Your task to perform on an android device: uninstall "Grab" Image 0: 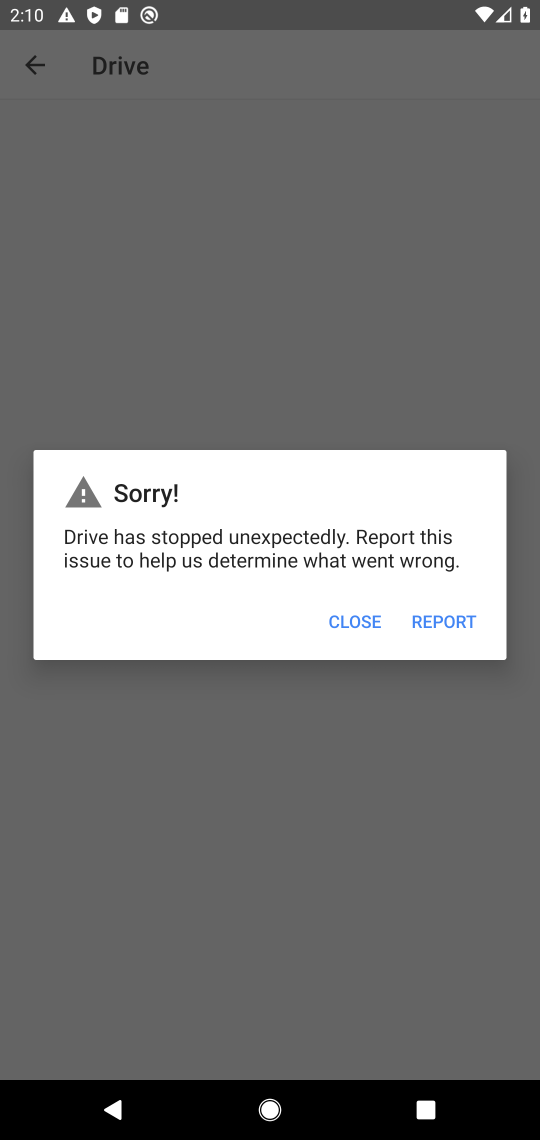
Step 0: press home button
Your task to perform on an android device: uninstall "Grab" Image 1: 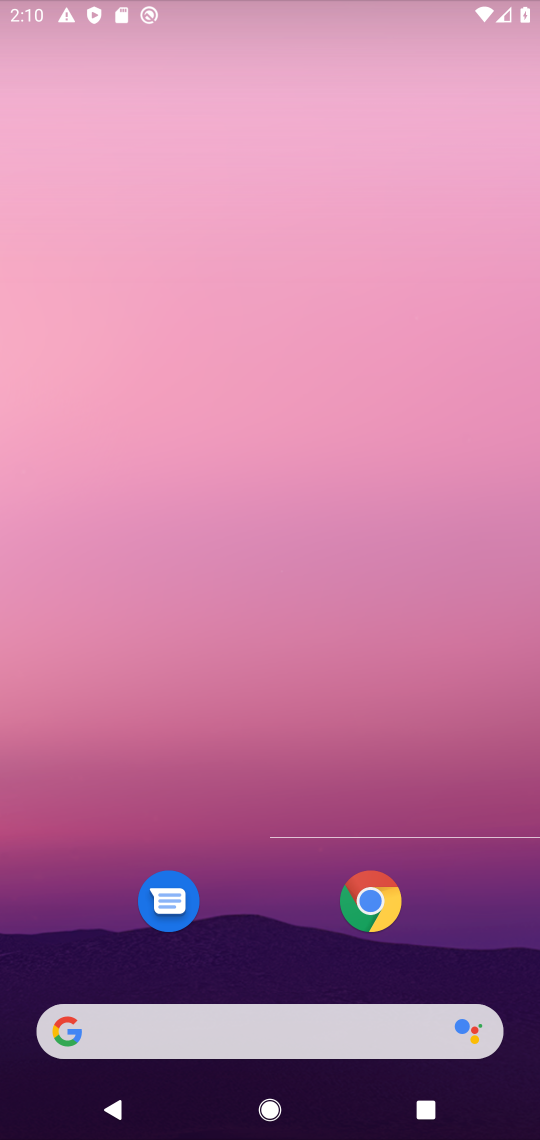
Step 1: drag from (303, 1005) to (302, 3)
Your task to perform on an android device: uninstall "Grab" Image 2: 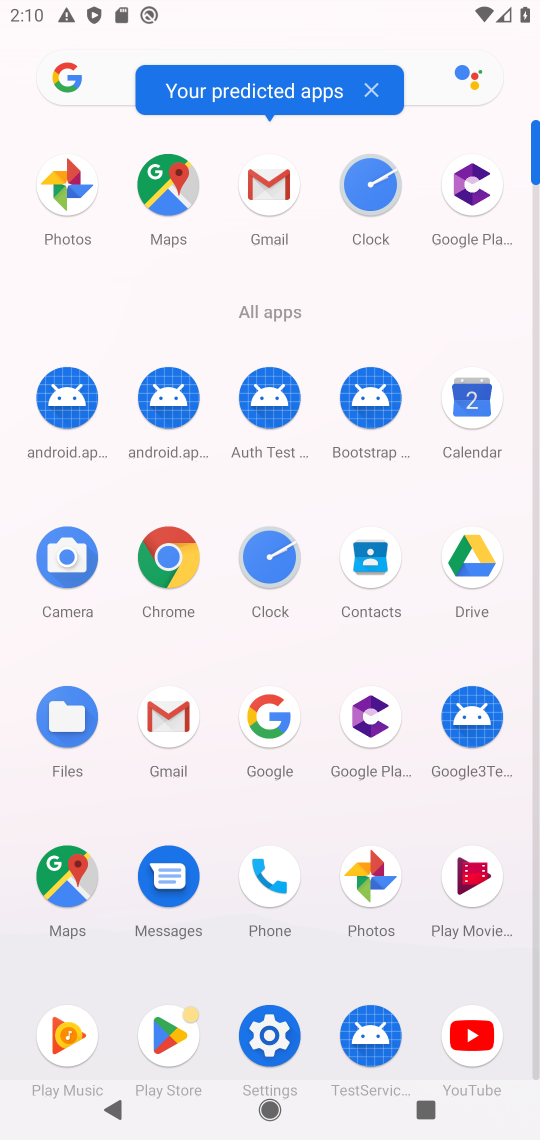
Step 2: click (174, 1023)
Your task to perform on an android device: uninstall "Grab" Image 3: 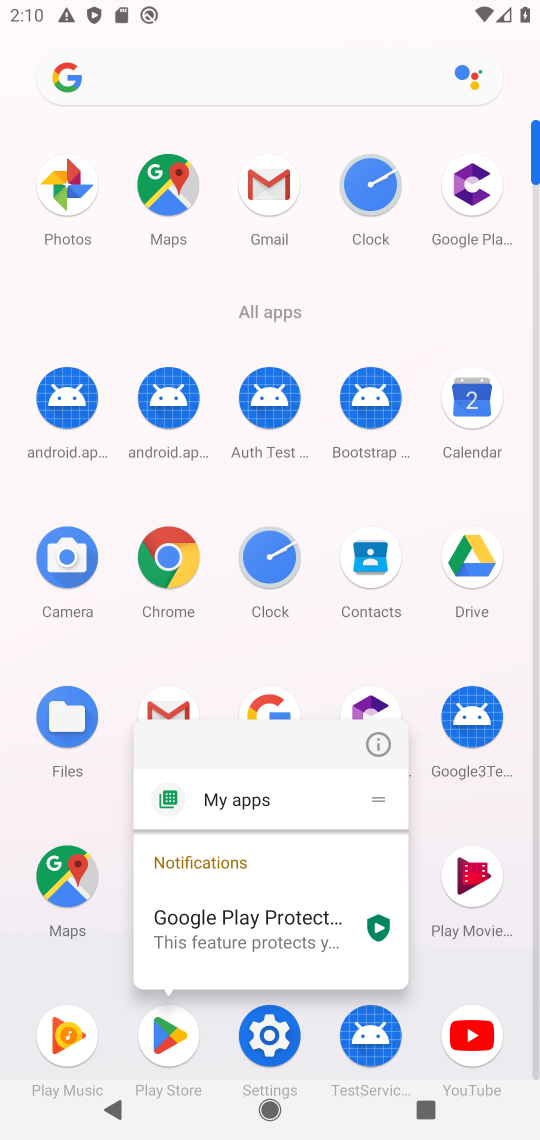
Step 3: click (166, 1029)
Your task to perform on an android device: uninstall "Grab" Image 4: 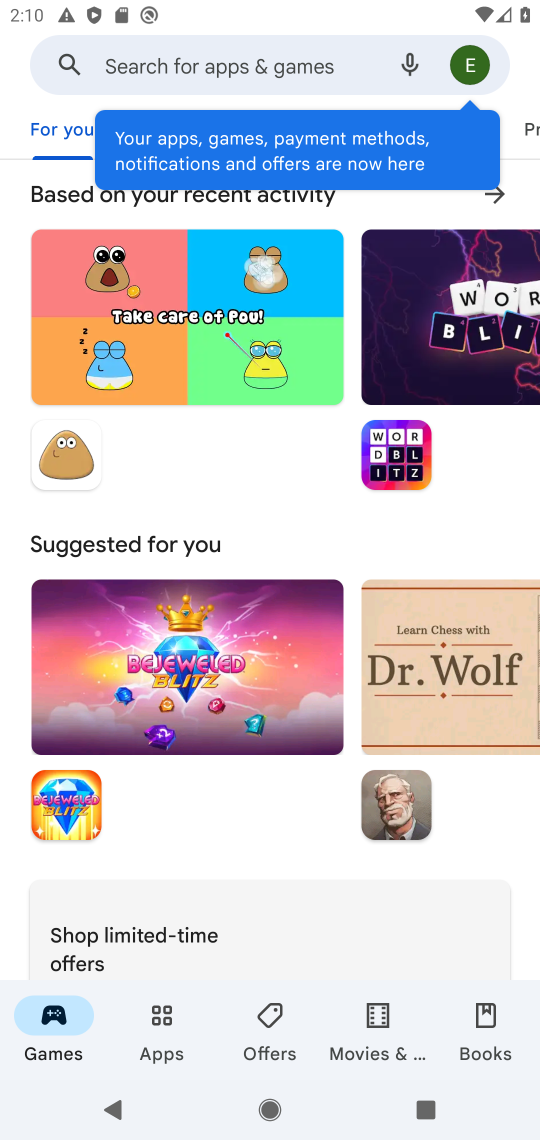
Step 4: click (276, 62)
Your task to perform on an android device: uninstall "Grab" Image 5: 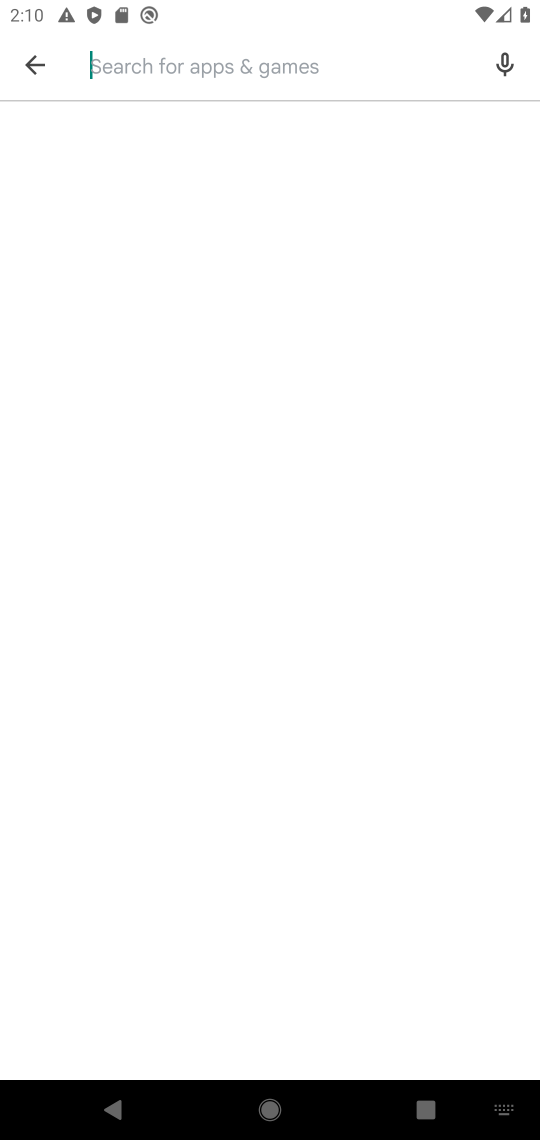
Step 5: type "Grab"
Your task to perform on an android device: uninstall "Grab" Image 6: 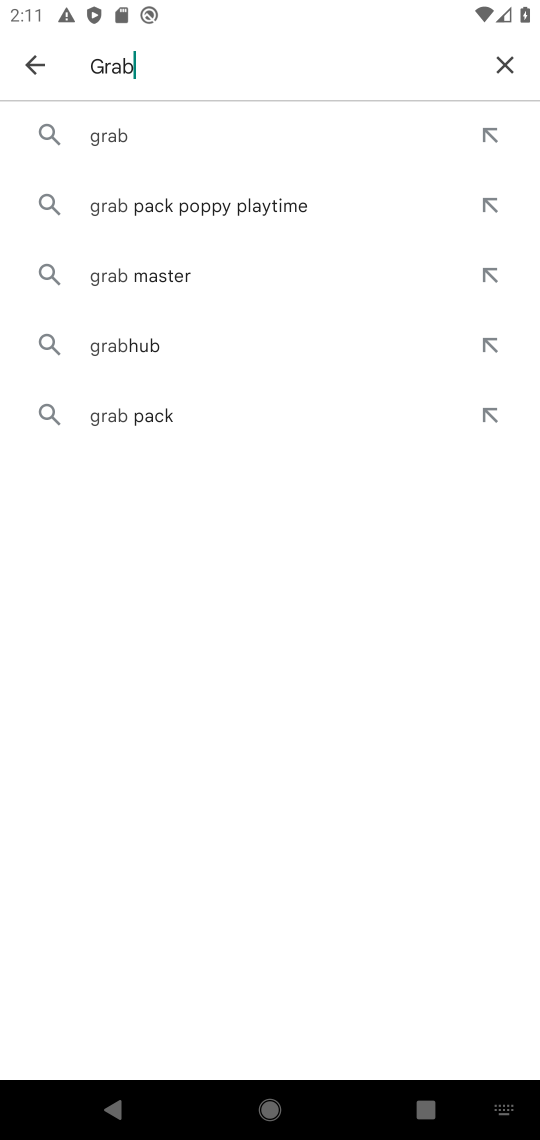
Step 6: click (133, 133)
Your task to perform on an android device: uninstall "Grab" Image 7: 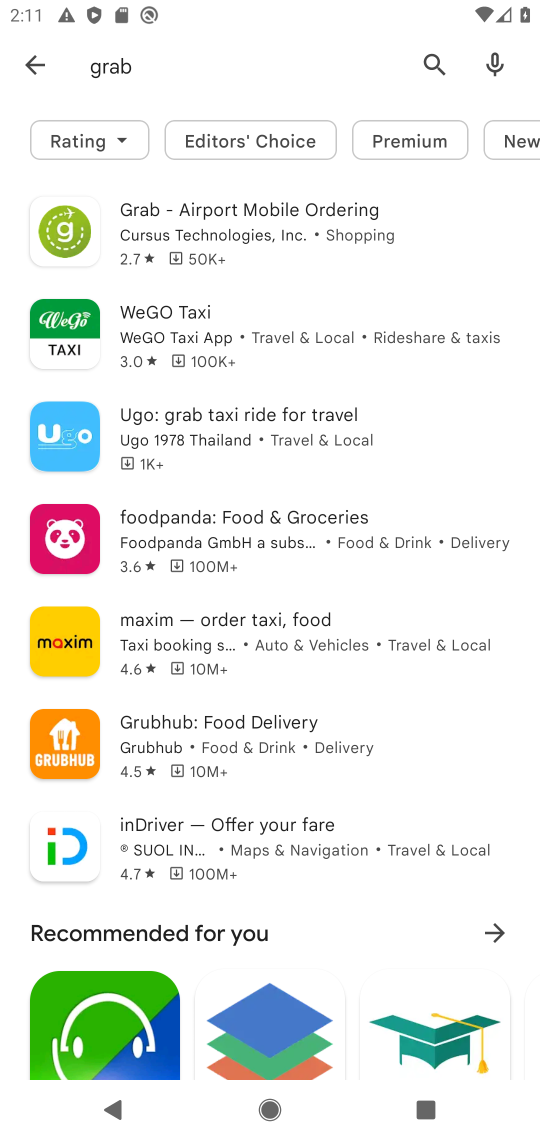
Step 7: task complete